Your task to perform on an android device: move a message to another label in the gmail app Image 0: 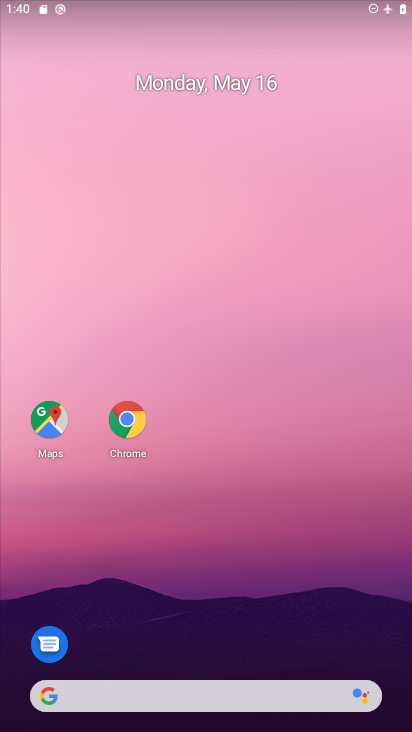
Step 0: drag from (170, 620) to (239, 126)
Your task to perform on an android device: move a message to another label in the gmail app Image 1: 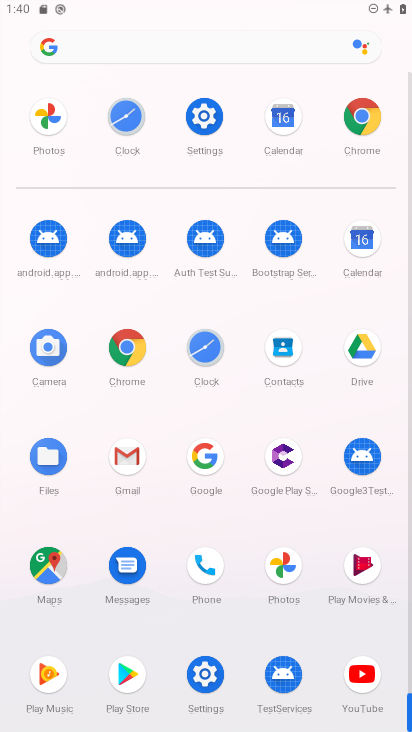
Step 1: click (121, 455)
Your task to perform on an android device: move a message to another label in the gmail app Image 2: 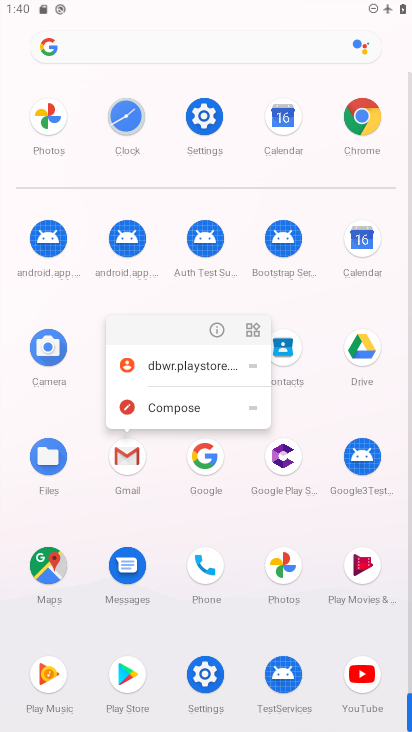
Step 2: click (155, 379)
Your task to perform on an android device: move a message to another label in the gmail app Image 3: 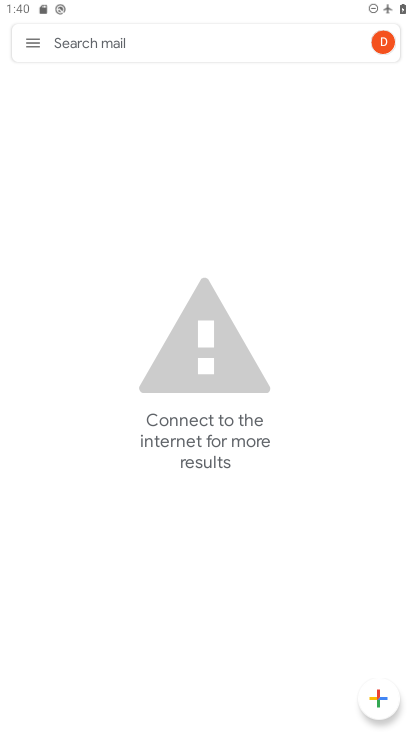
Step 3: task complete